Your task to perform on an android device: change notification settings in the gmail app Image 0: 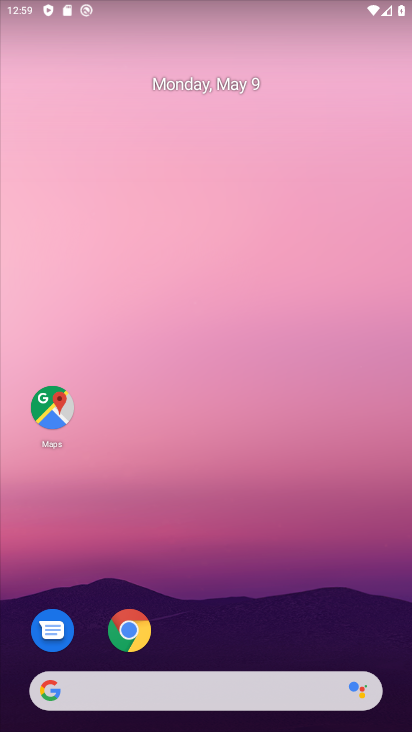
Step 0: drag from (258, 714) to (260, 427)
Your task to perform on an android device: change notification settings in the gmail app Image 1: 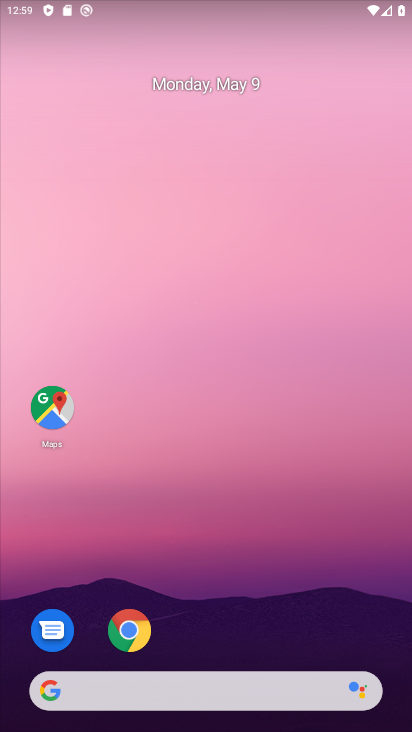
Step 1: drag from (258, 726) to (278, 413)
Your task to perform on an android device: change notification settings in the gmail app Image 2: 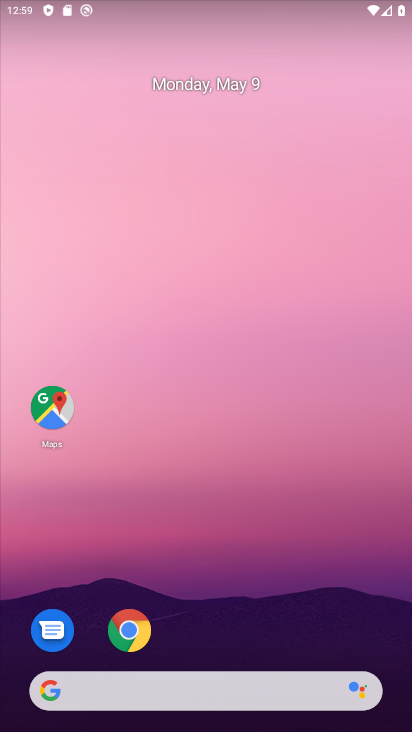
Step 2: click (280, 515)
Your task to perform on an android device: change notification settings in the gmail app Image 3: 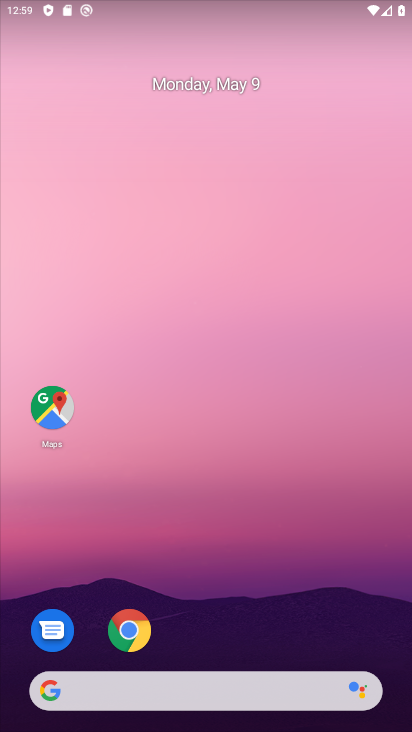
Step 3: drag from (266, 725) to (276, 431)
Your task to perform on an android device: change notification settings in the gmail app Image 4: 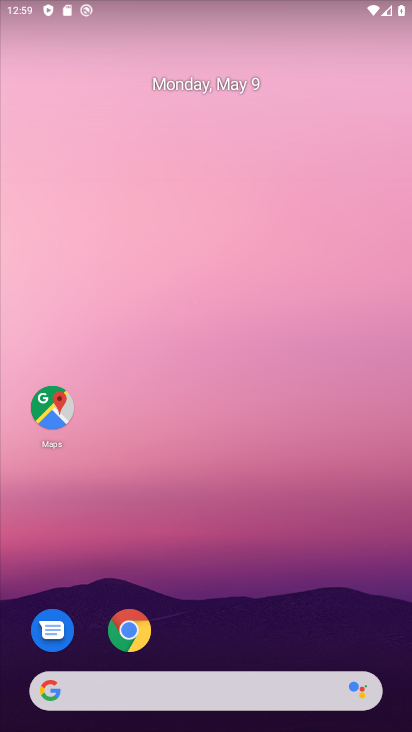
Step 4: drag from (263, 706) to (259, 218)
Your task to perform on an android device: change notification settings in the gmail app Image 5: 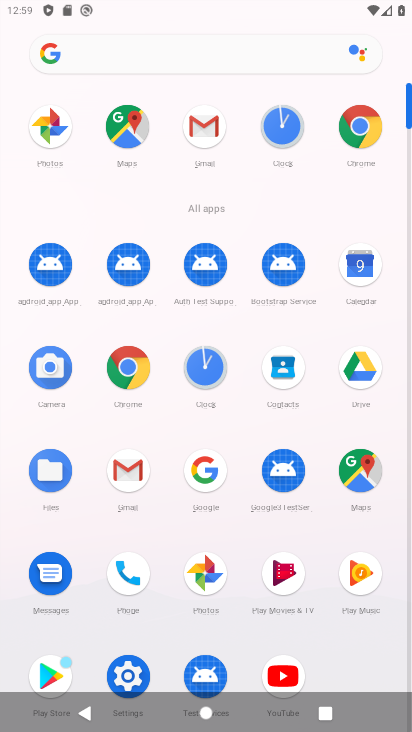
Step 5: click (187, 148)
Your task to perform on an android device: change notification settings in the gmail app Image 6: 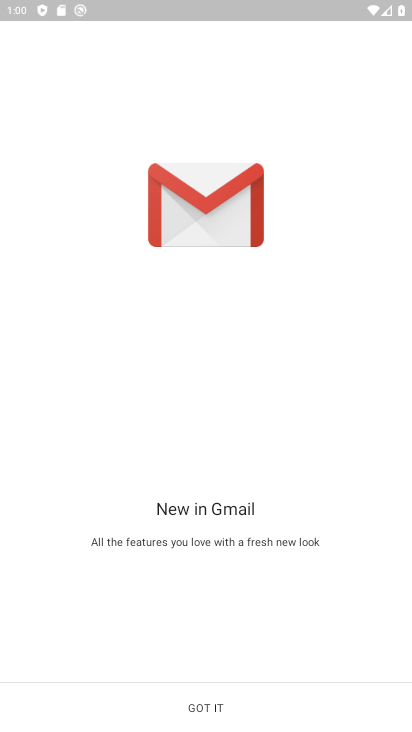
Step 6: click (262, 702)
Your task to perform on an android device: change notification settings in the gmail app Image 7: 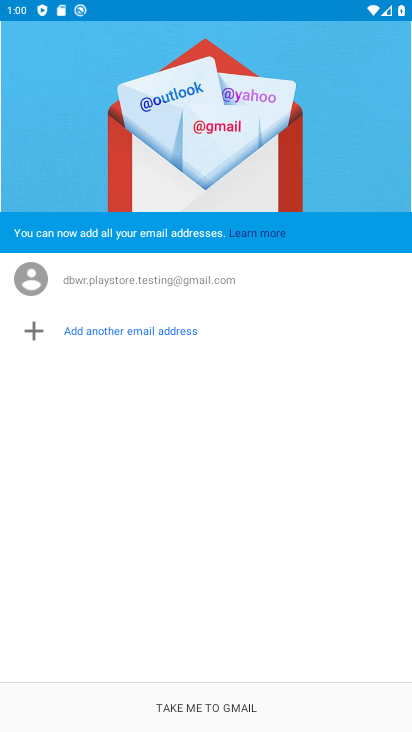
Step 7: click (262, 702)
Your task to perform on an android device: change notification settings in the gmail app Image 8: 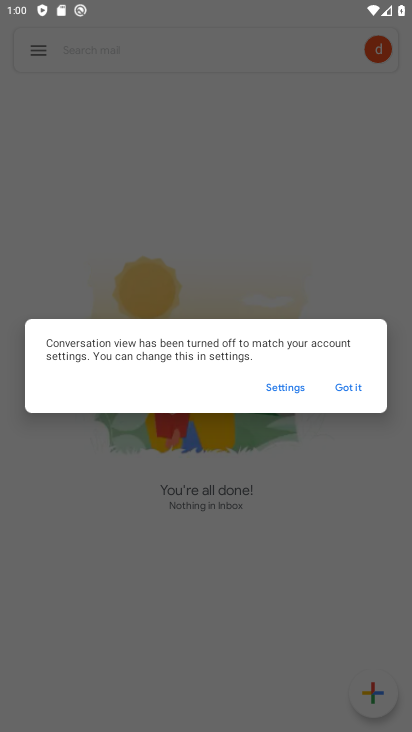
Step 8: click (339, 383)
Your task to perform on an android device: change notification settings in the gmail app Image 9: 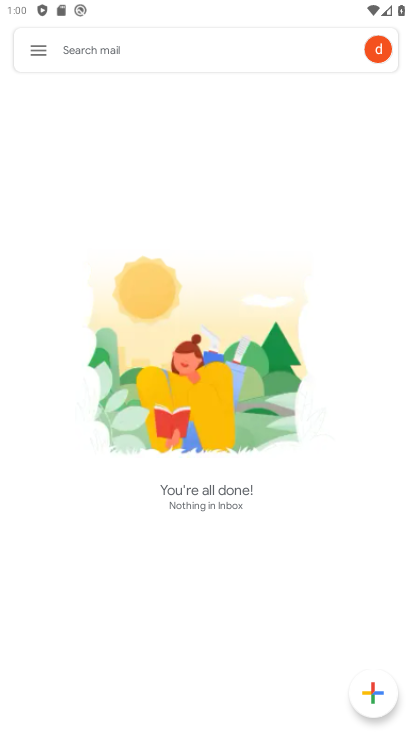
Step 9: click (40, 50)
Your task to perform on an android device: change notification settings in the gmail app Image 10: 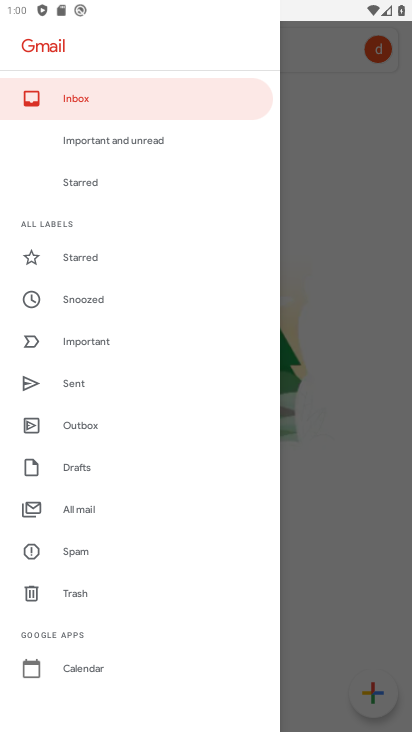
Step 10: drag from (84, 481) to (166, 338)
Your task to perform on an android device: change notification settings in the gmail app Image 11: 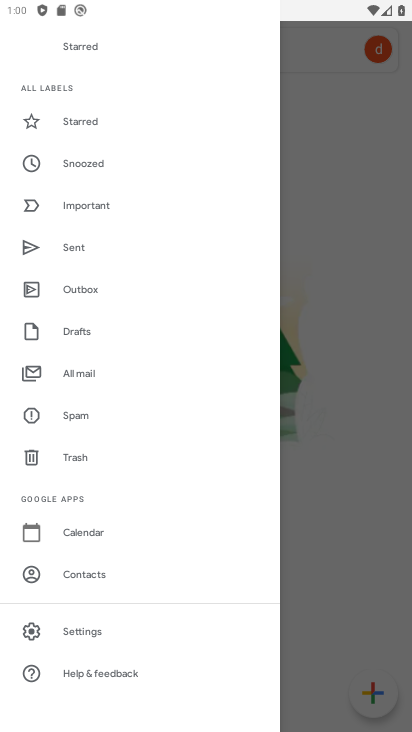
Step 11: click (78, 630)
Your task to perform on an android device: change notification settings in the gmail app Image 12: 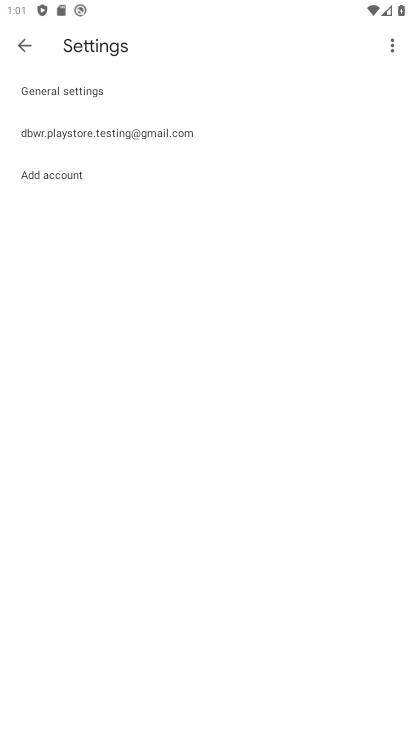
Step 12: click (92, 138)
Your task to perform on an android device: change notification settings in the gmail app Image 13: 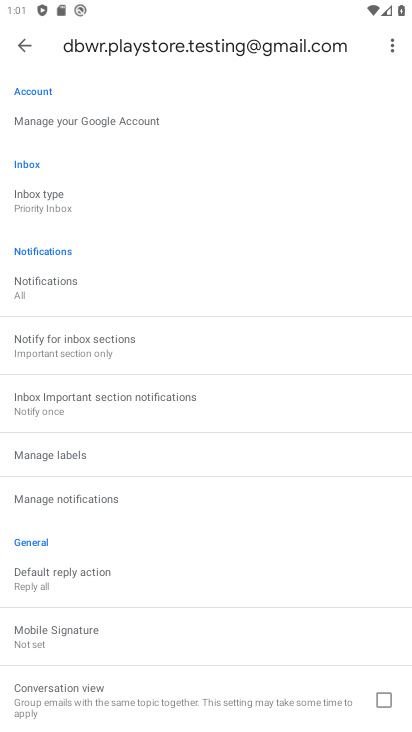
Step 13: click (50, 294)
Your task to perform on an android device: change notification settings in the gmail app Image 14: 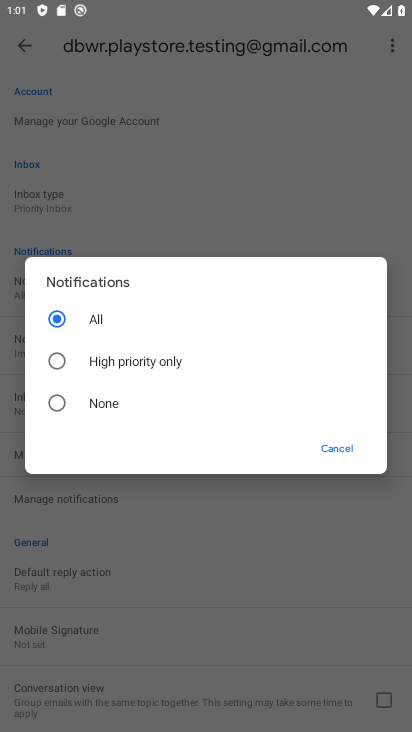
Step 14: task complete